Your task to perform on an android device: open a bookmark in the chrome app Image 0: 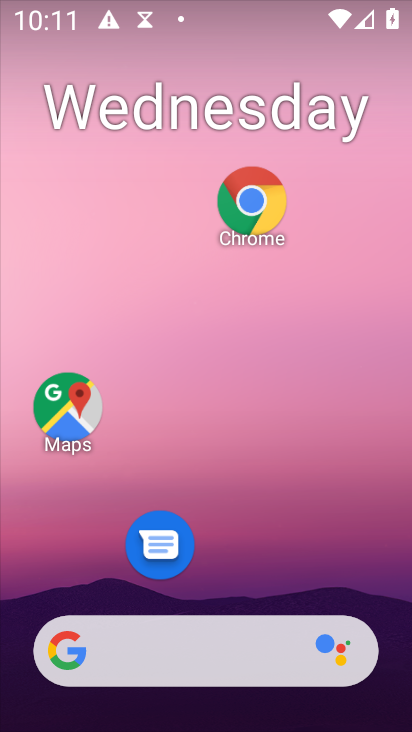
Step 0: click (244, 189)
Your task to perform on an android device: open a bookmark in the chrome app Image 1: 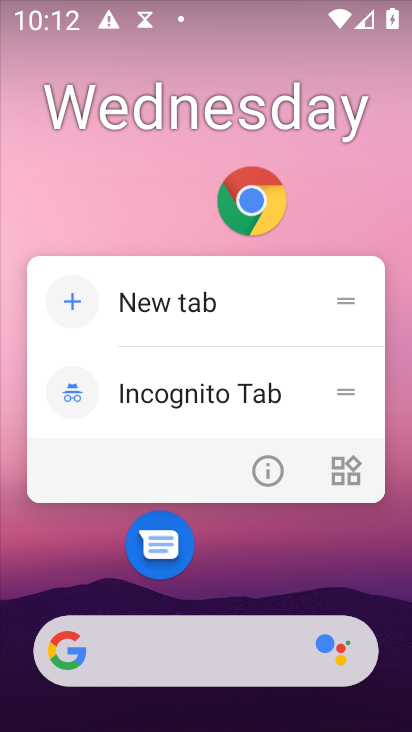
Step 1: click (244, 189)
Your task to perform on an android device: open a bookmark in the chrome app Image 2: 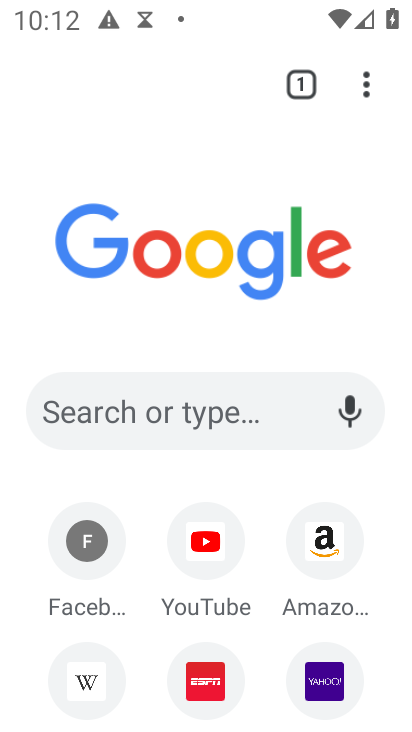
Step 2: click (365, 77)
Your task to perform on an android device: open a bookmark in the chrome app Image 3: 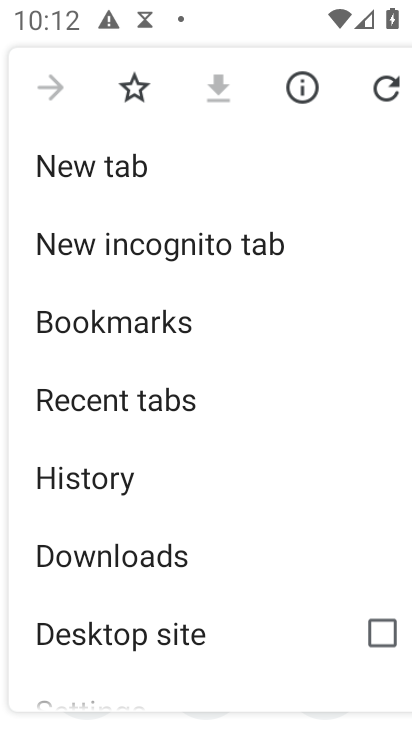
Step 3: click (150, 328)
Your task to perform on an android device: open a bookmark in the chrome app Image 4: 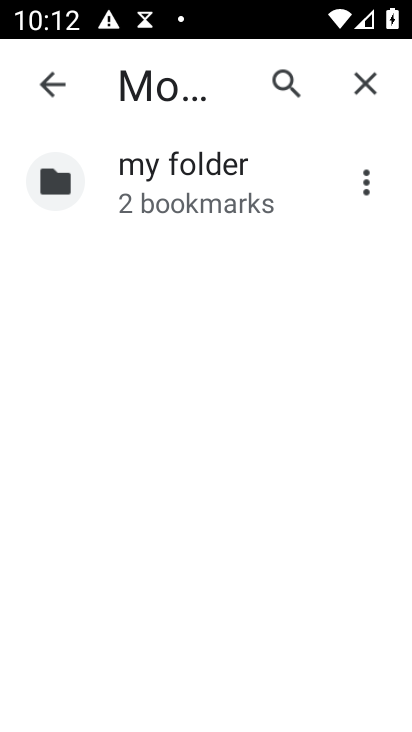
Step 4: click (246, 192)
Your task to perform on an android device: open a bookmark in the chrome app Image 5: 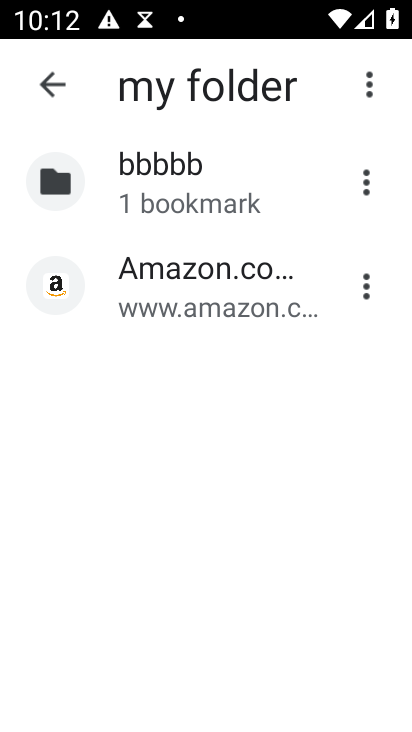
Step 5: click (194, 278)
Your task to perform on an android device: open a bookmark in the chrome app Image 6: 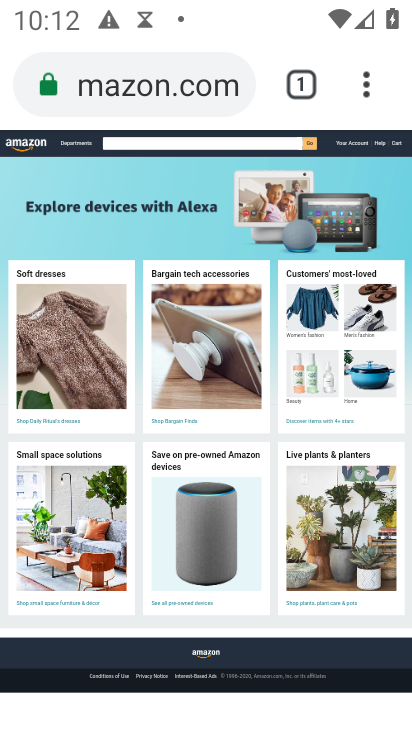
Step 6: task complete